Your task to perform on an android device: turn on translation in the chrome app Image 0: 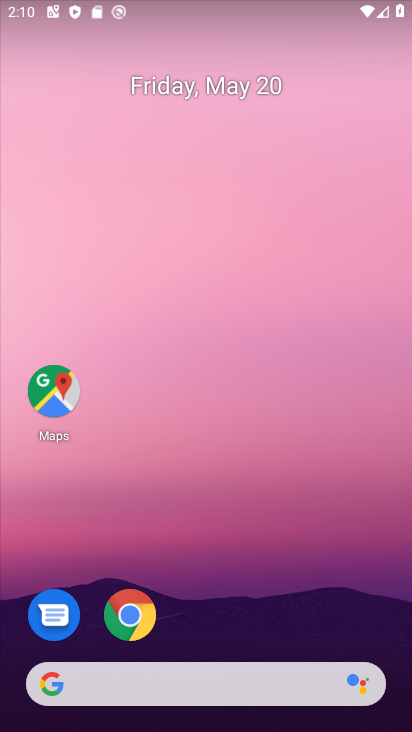
Step 0: drag from (190, 569) to (195, 272)
Your task to perform on an android device: turn on translation in the chrome app Image 1: 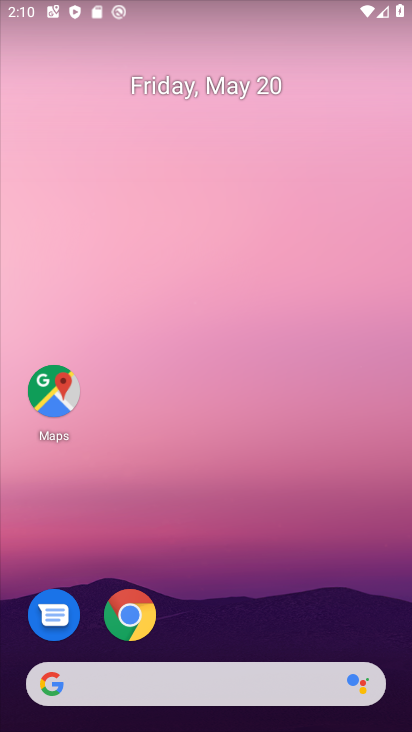
Step 1: drag from (220, 560) to (247, 456)
Your task to perform on an android device: turn on translation in the chrome app Image 2: 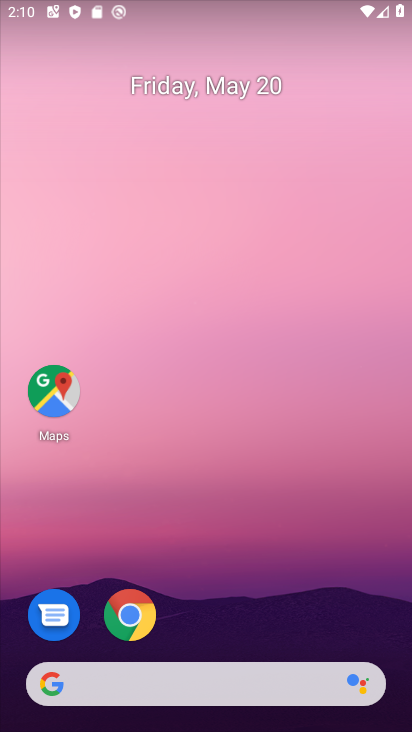
Step 2: drag from (216, 634) to (255, 260)
Your task to perform on an android device: turn on translation in the chrome app Image 3: 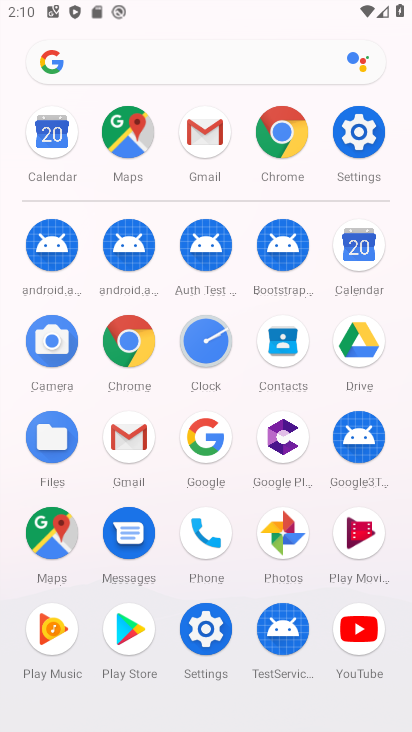
Step 3: click (114, 336)
Your task to perform on an android device: turn on translation in the chrome app Image 4: 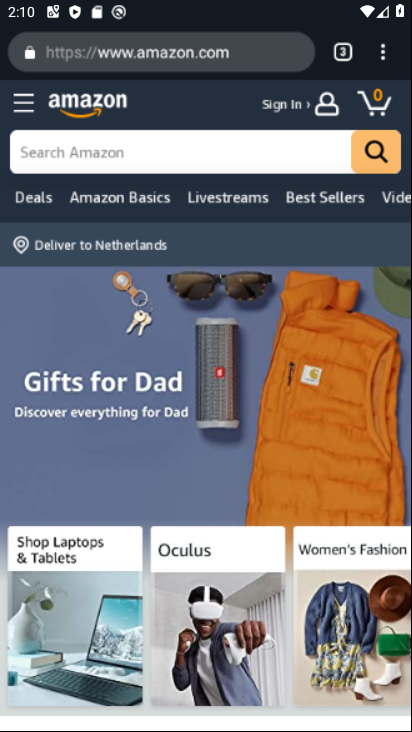
Step 4: click (374, 51)
Your task to perform on an android device: turn on translation in the chrome app Image 5: 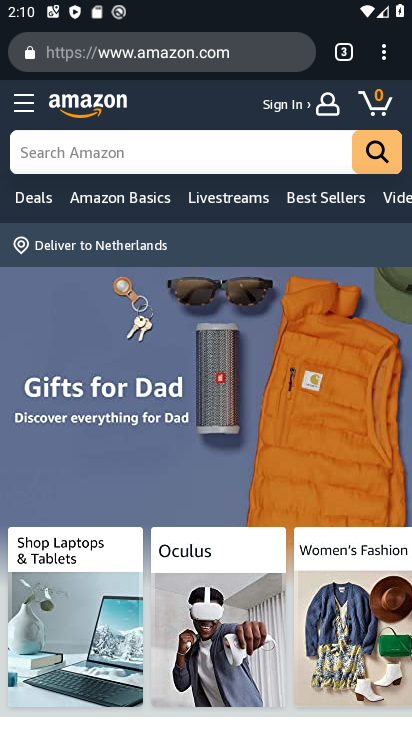
Step 5: click (385, 46)
Your task to perform on an android device: turn on translation in the chrome app Image 6: 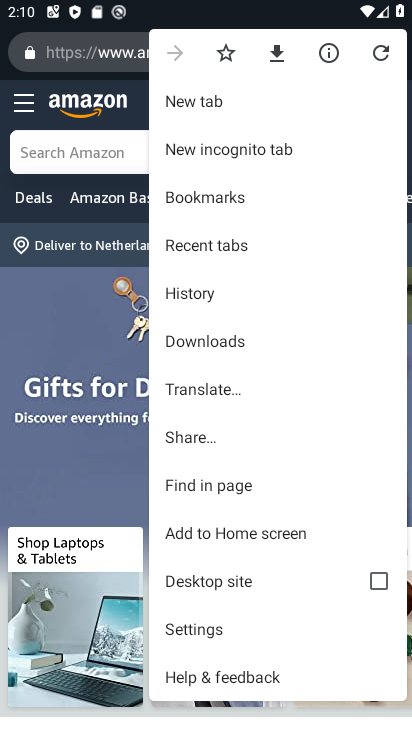
Step 6: click (239, 625)
Your task to perform on an android device: turn on translation in the chrome app Image 7: 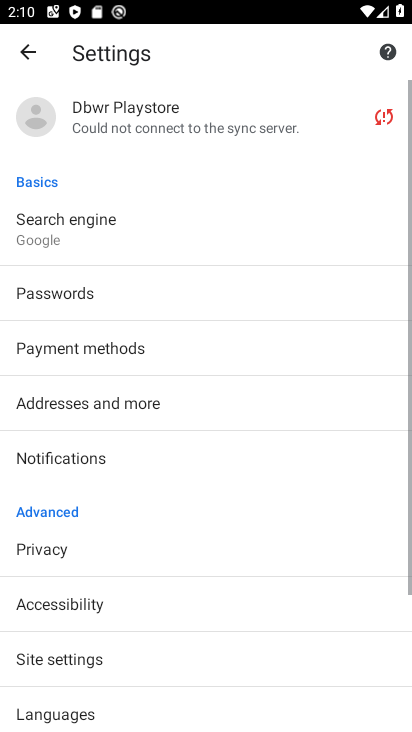
Step 7: drag from (237, 595) to (283, 198)
Your task to perform on an android device: turn on translation in the chrome app Image 8: 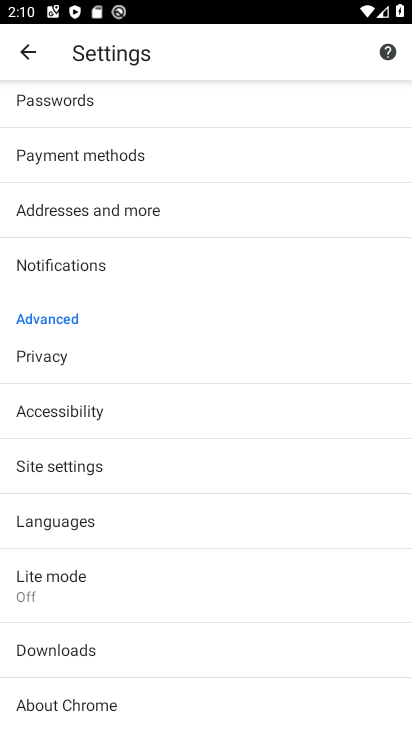
Step 8: click (102, 520)
Your task to perform on an android device: turn on translation in the chrome app Image 9: 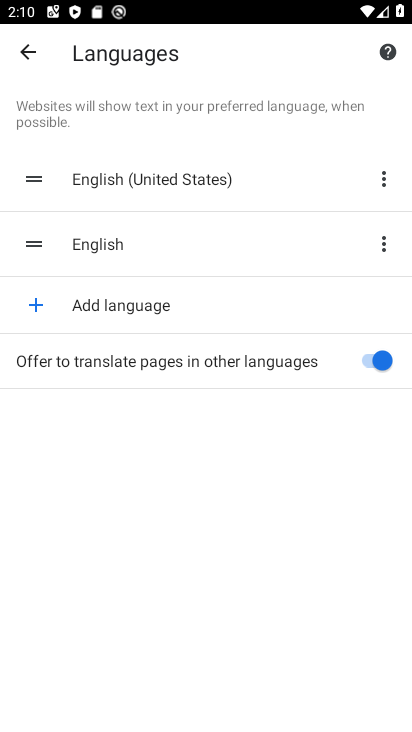
Step 9: click (377, 356)
Your task to perform on an android device: turn on translation in the chrome app Image 10: 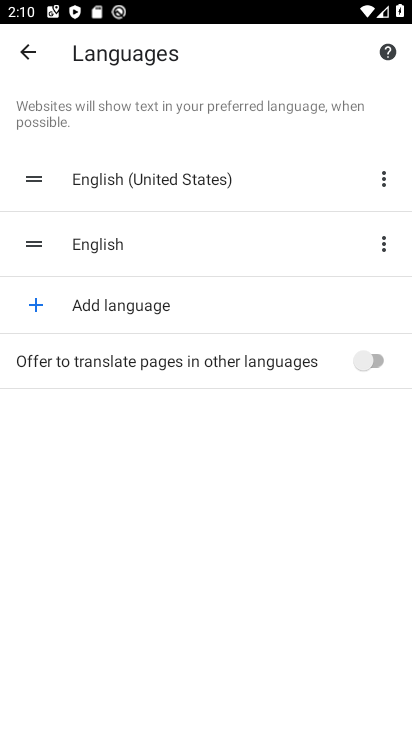
Step 10: click (375, 356)
Your task to perform on an android device: turn on translation in the chrome app Image 11: 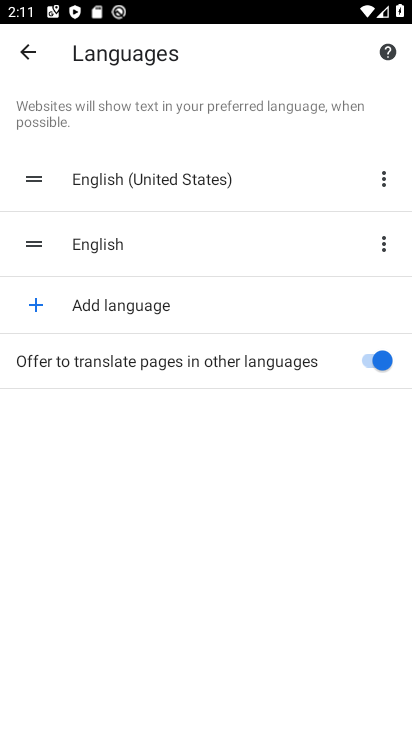
Step 11: task complete